Your task to perform on an android device: Check the news Image 0: 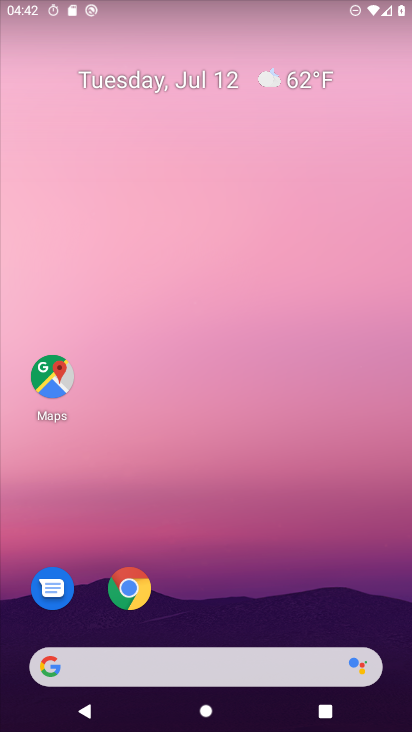
Step 0: drag from (233, 634) to (284, 199)
Your task to perform on an android device: Check the news Image 1: 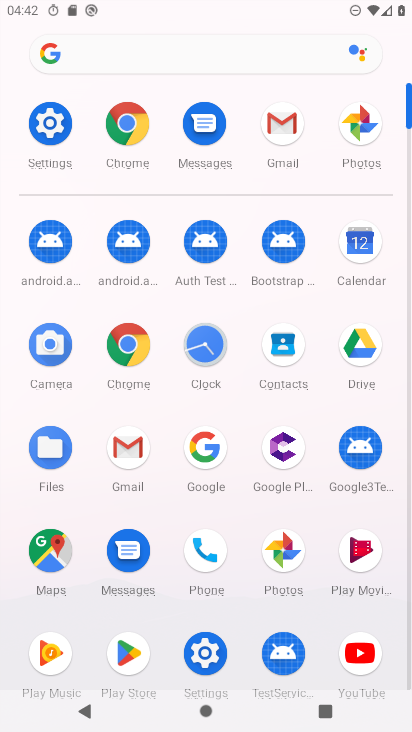
Step 1: click (264, 45)
Your task to perform on an android device: Check the news Image 2: 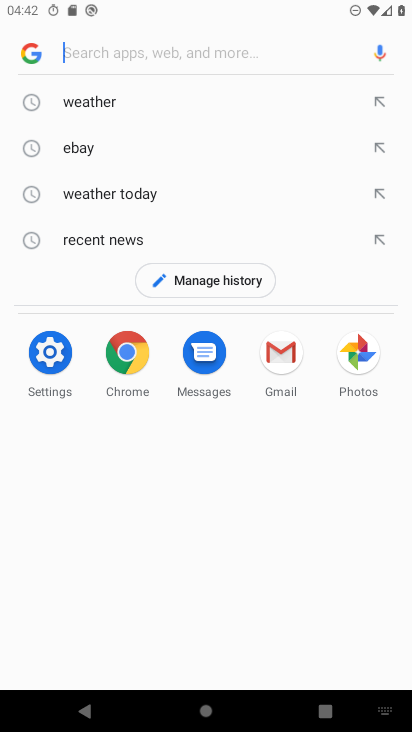
Step 2: type "news"
Your task to perform on an android device: Check the news Image 3: 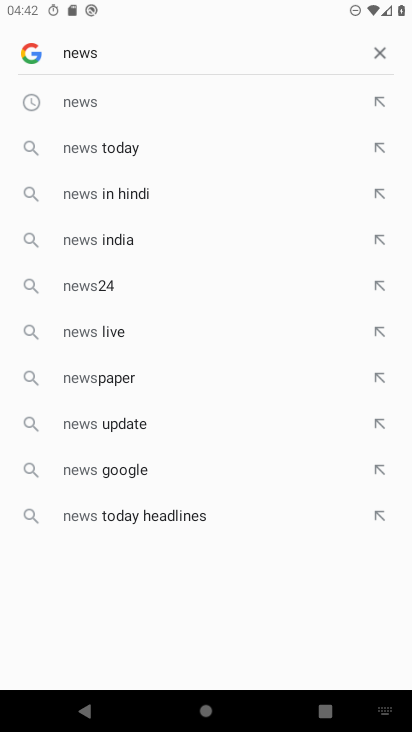
Step 3: click (124, 97)
Your task to perform on an android device: Check the news Image 4: 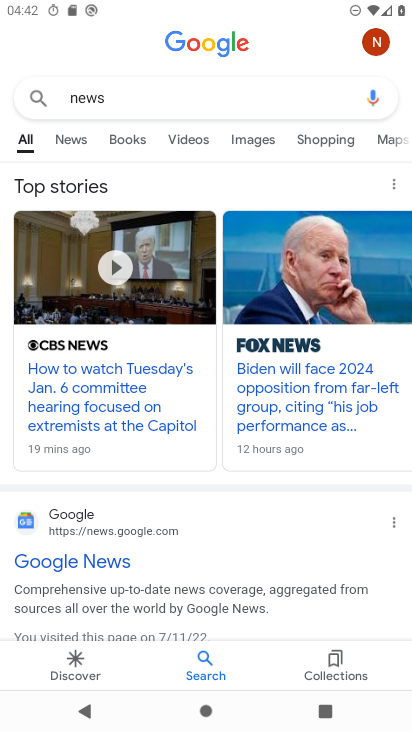
Step 4: task complete